Your task to perform on an android device: change the upload size in google photos Image 0: 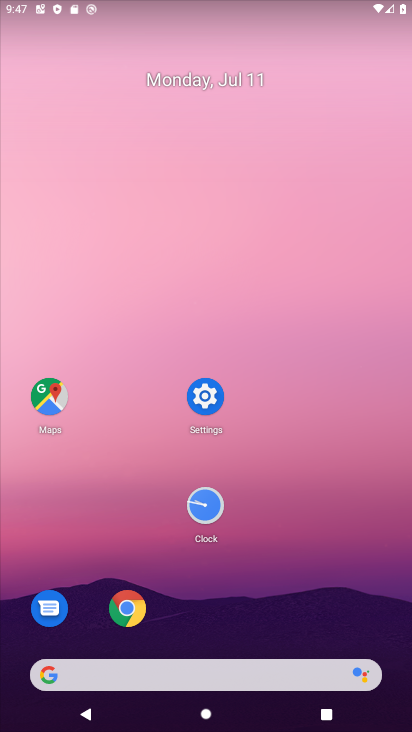
Step 0: drag from (398, 707) to (368, 110)
Your task to perform on an android device: change the upload size in google photos Image 1: 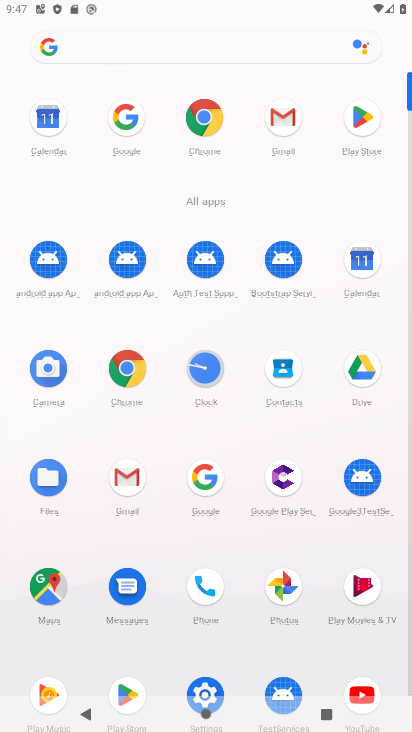
Step 1: click (280, 587)
Your task to perform on an android device: change the upload size in google photos Image 2: 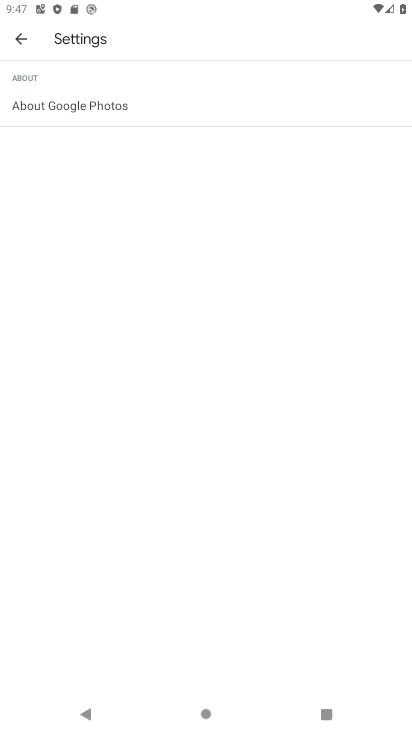
Step 2: press home button
Your task to perform on an android device: change the upload size in google photos Image 3: 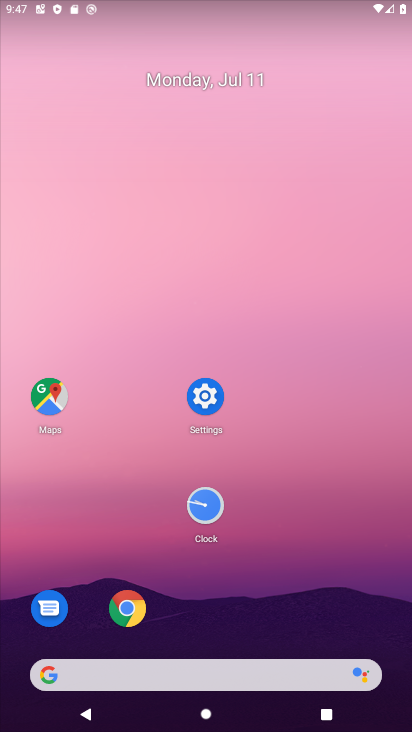
Step 3: drag from (398, 710) to (369, 130)
Your task to perform on an android device: change the upload size in google photos Image 4: 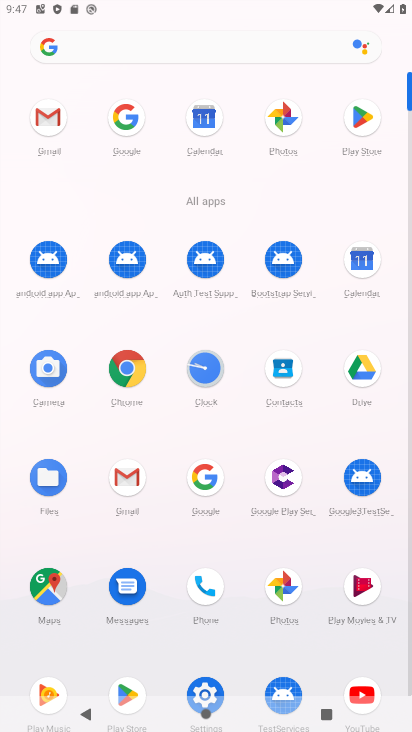
Step 4: click (277, 577)
Your task to perform on an android device: change the upload size in google photos Image 5: 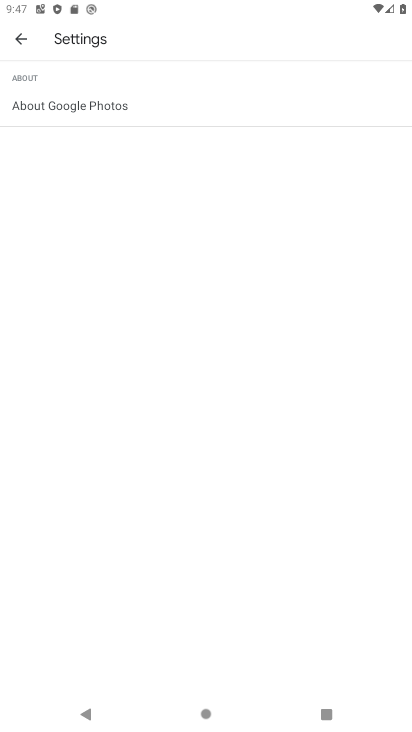
Step 5: click (21, 41)
Your task to perform on an android device: change the upload size in google photos Image 6: 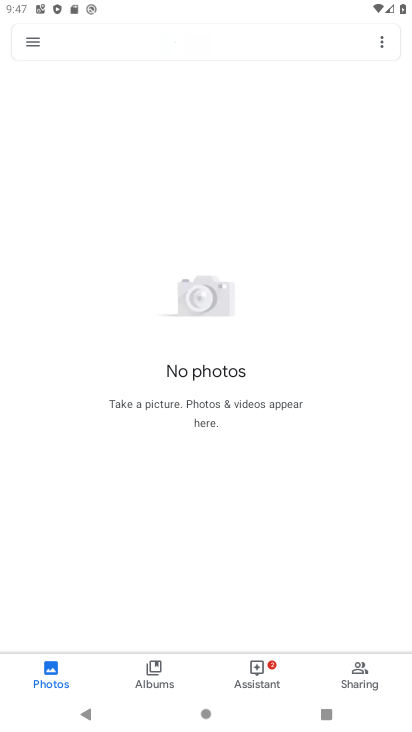
Step 6: click (32, 40)
Your task to perform on an android device: change the upload size in google photos Image 7: 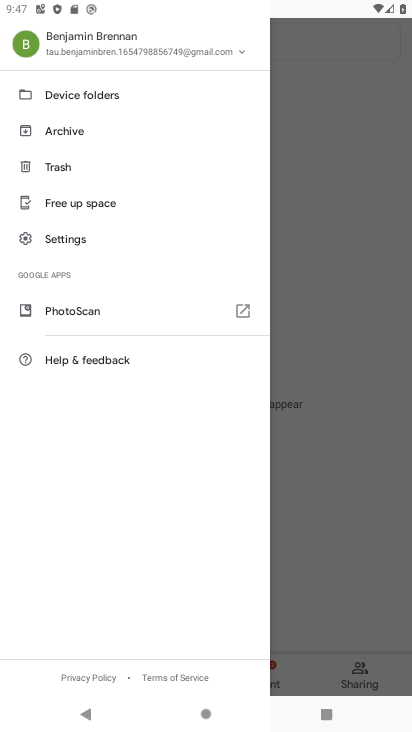
Step 7: click (54, 237)
Your task to perform on an android device: change the upload size in google photos Image 8: 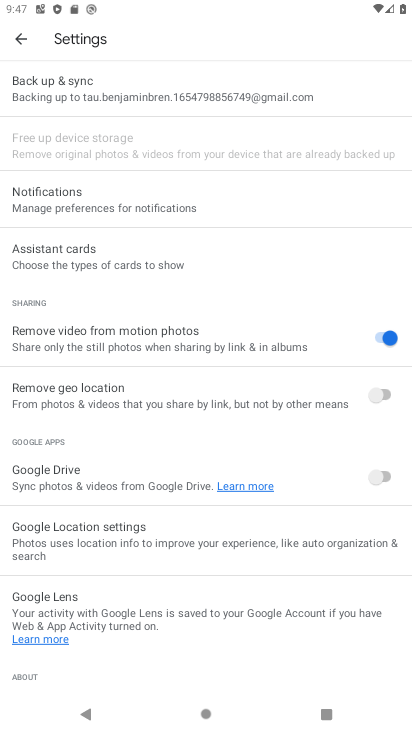
Step 8: click (46, 92)
Your task to perform on an android device: change the upload size in google photos Image 9: 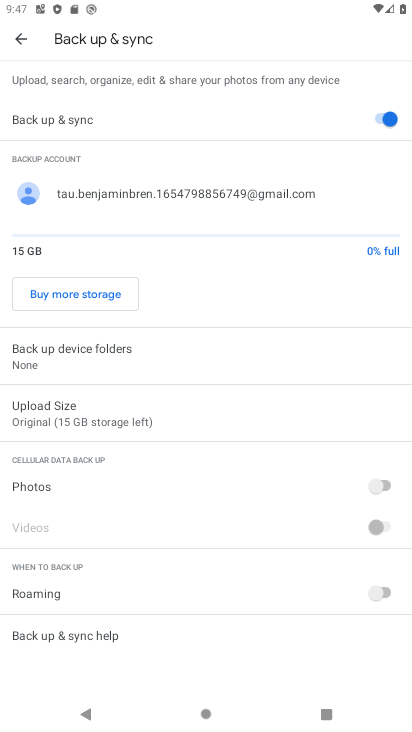
Step 9: click (44, 413)
Your task to perform on an android device: change the upload size in google photos Image 10: 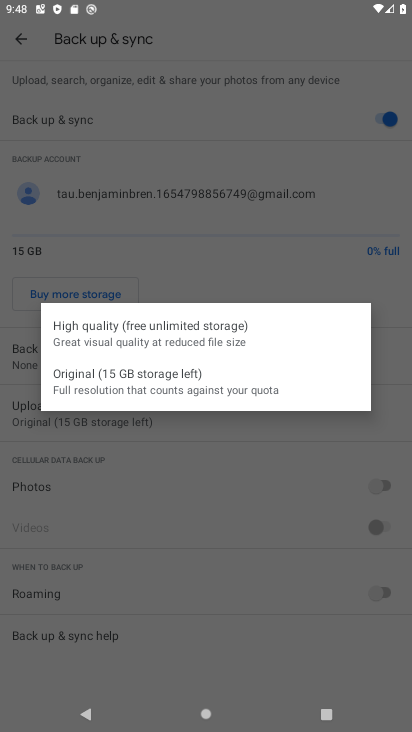
Step 10: click (100, 335)
Your task to perform on an android device: change the upload size in google photos Image 11: 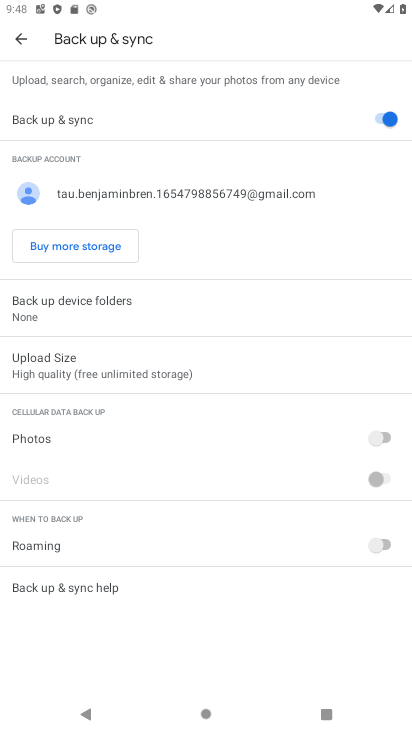
Step 11: task complete